Your task to perform on an android device: Open Chrome and go to the settings page Image 0: 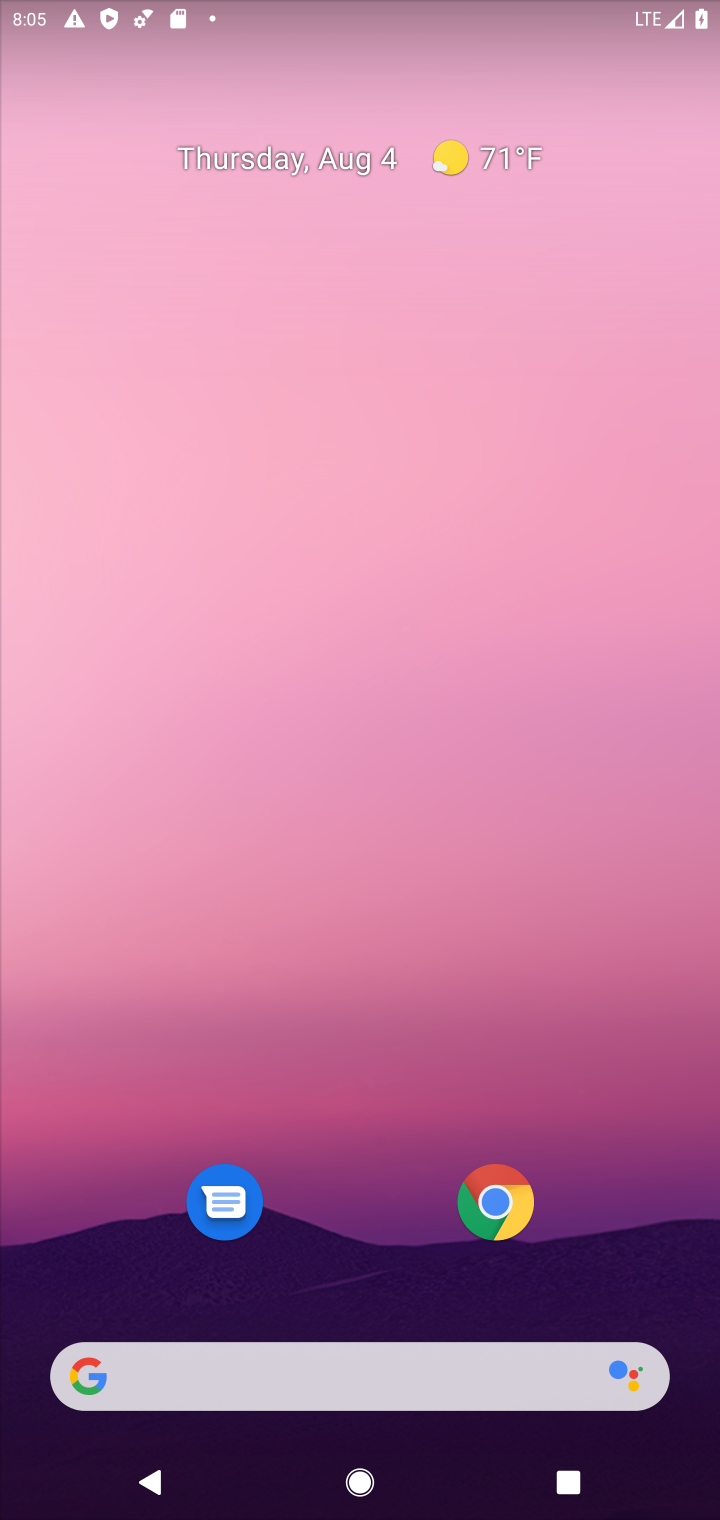
Step 0: click (489, 1234)
Your task to perform on an android device: Open Chrome and go to the settings page Image 1: 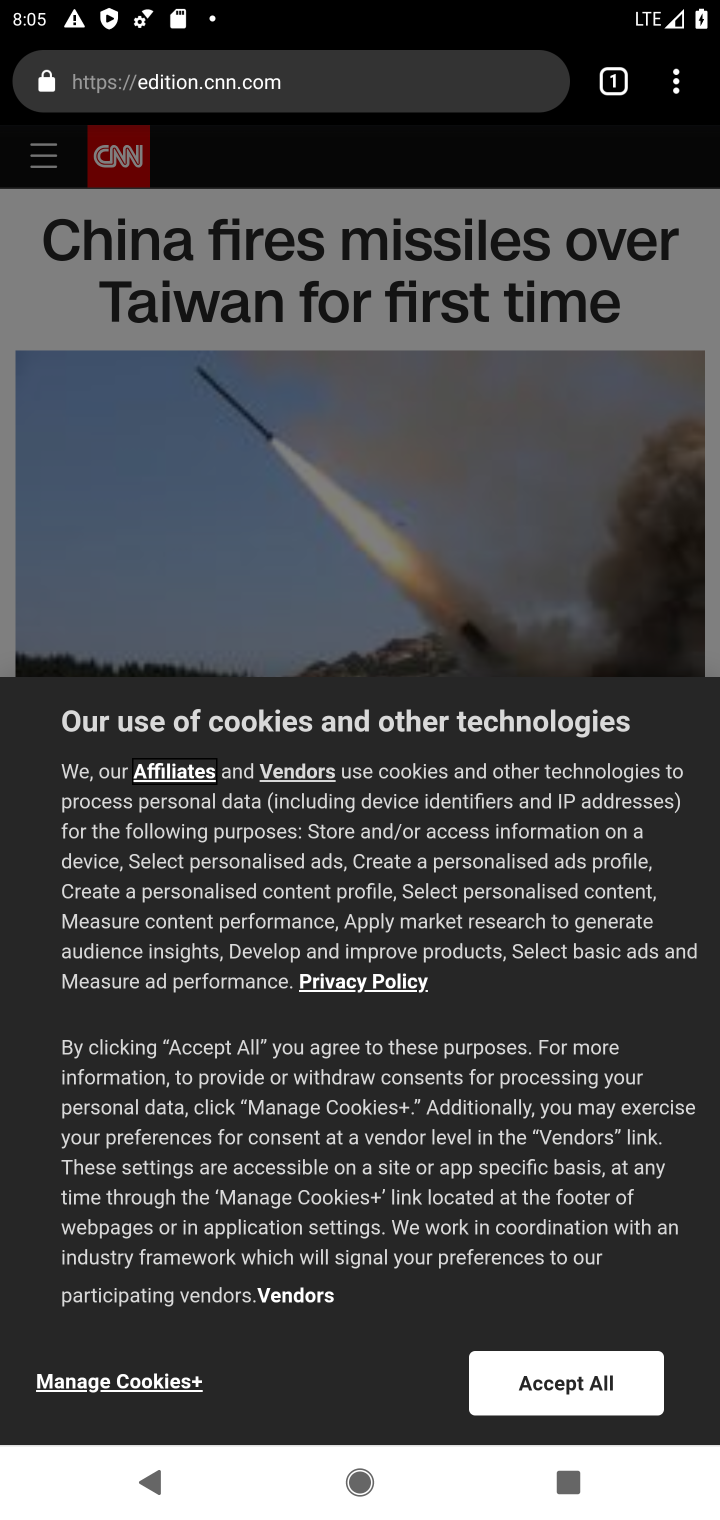
Step 1: click (674, 89)
Your task to perform on an android device: Open Chrome and go to the settings page Image 2: 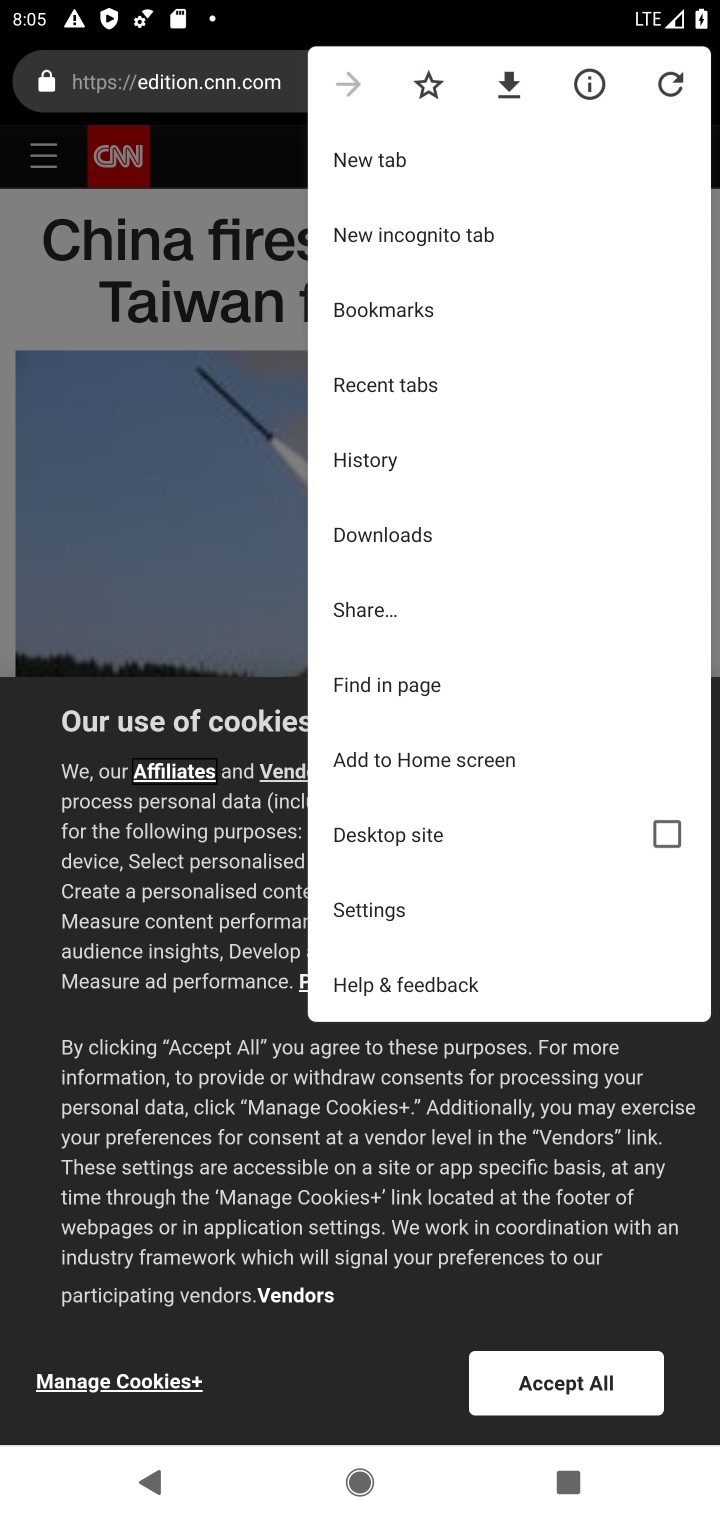
Step 2: click (451, 898)
Your task to perform on an android device: Open Chrome and go to the settings page Image 3: 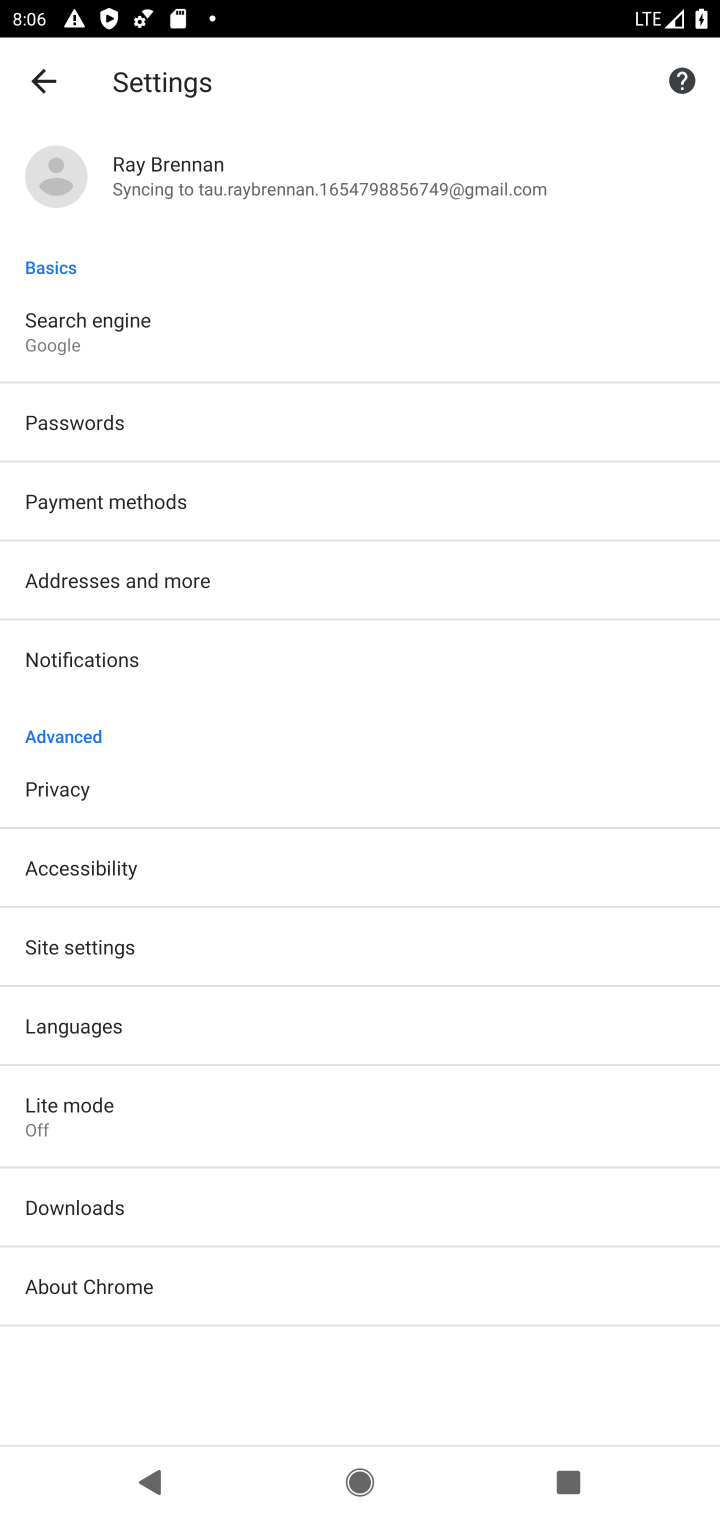
Step 3: task complete